Your task to perform on an android device: Open settings on Google Maps Image 0: 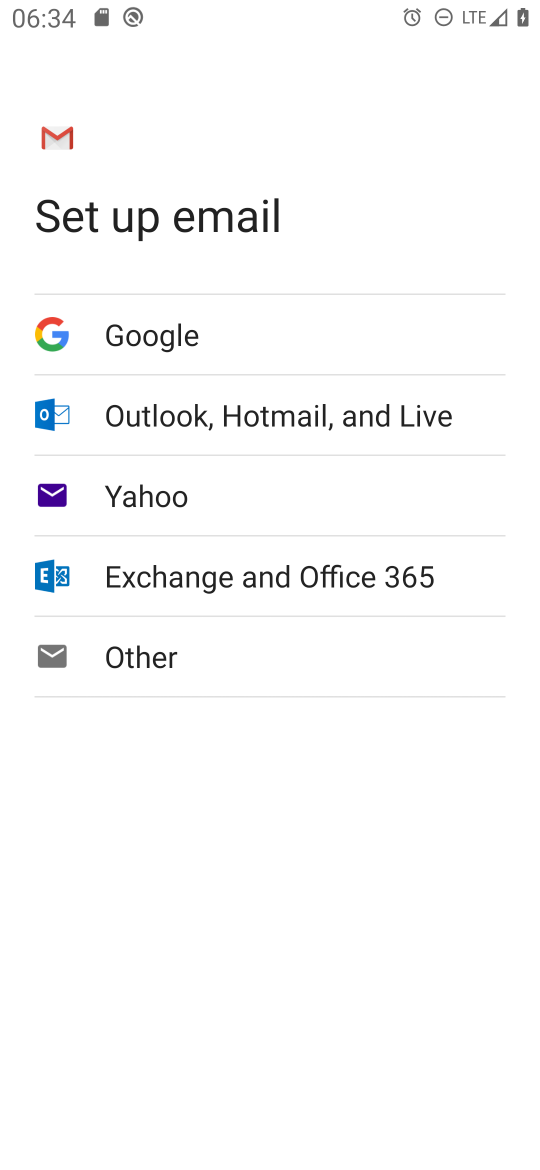
Step 0: press home button
Your task to perform on an android device: Open settings on Google Maps Image 1: 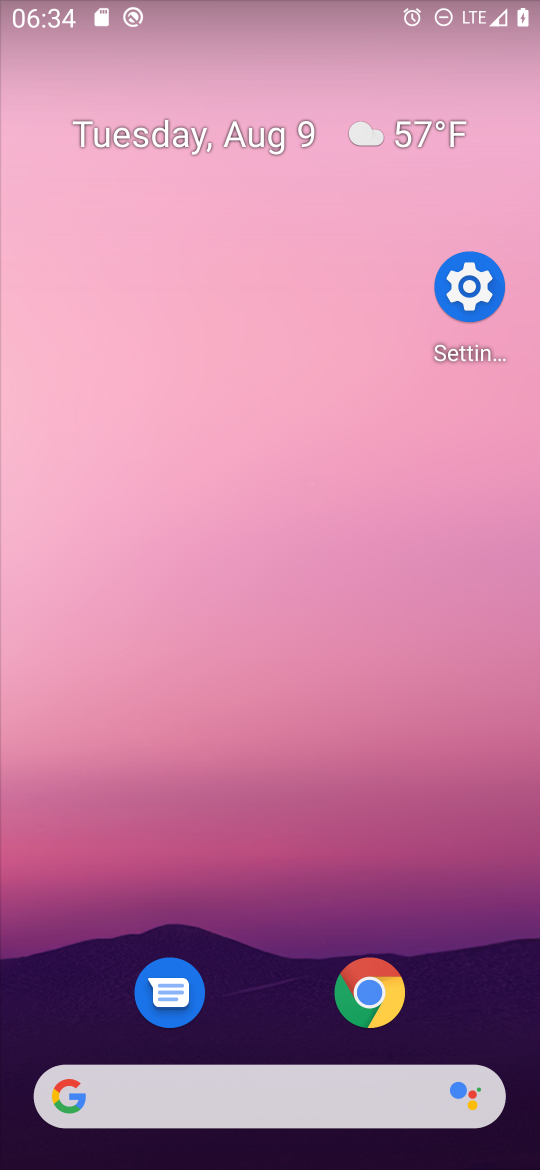
Step 1: drag from (321, 1083) to (257, 793)
Your task to perform on an android device: Open settings on Google Maps Image 2: 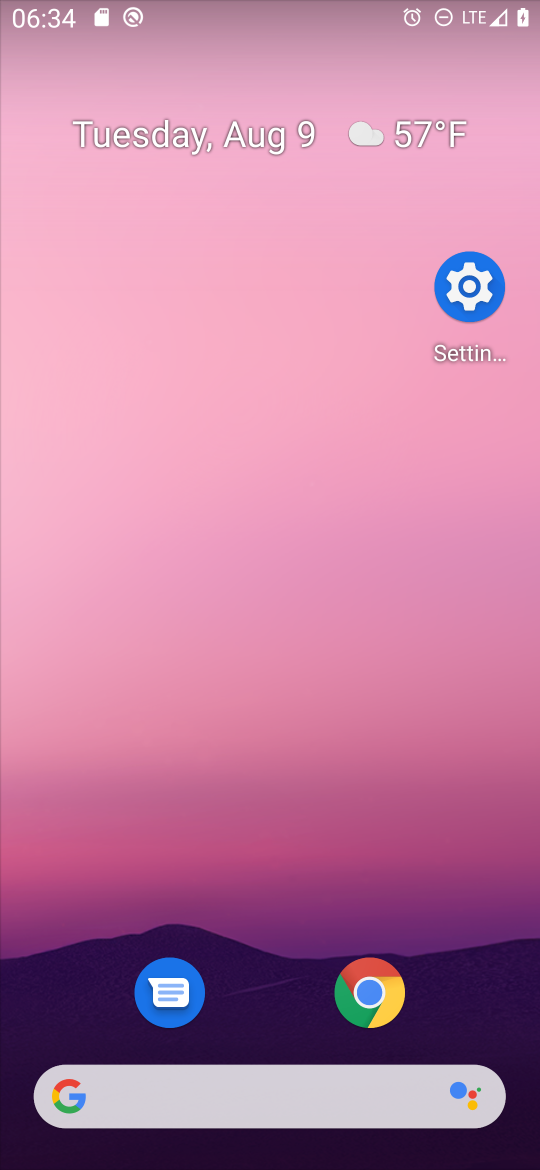
Step 2: drag from (254, 1088) to (246, 160)
Your task to perform on an android device: Open settings on Google Maps Image 3: 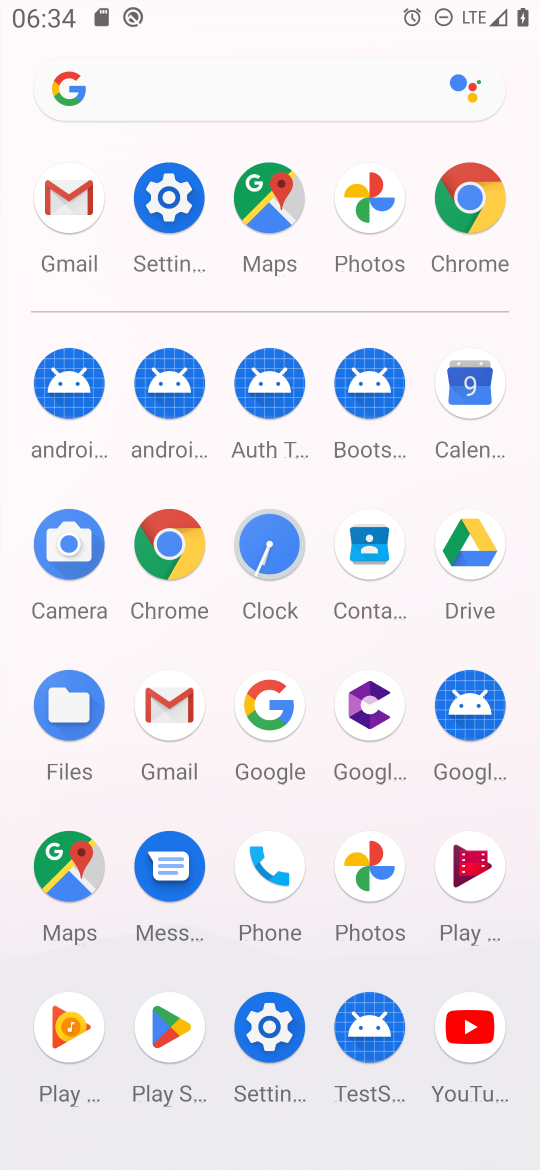
Step 3: click (75, 873)
Your task to perform on an android device: Open settings on Google Maps Image 4: 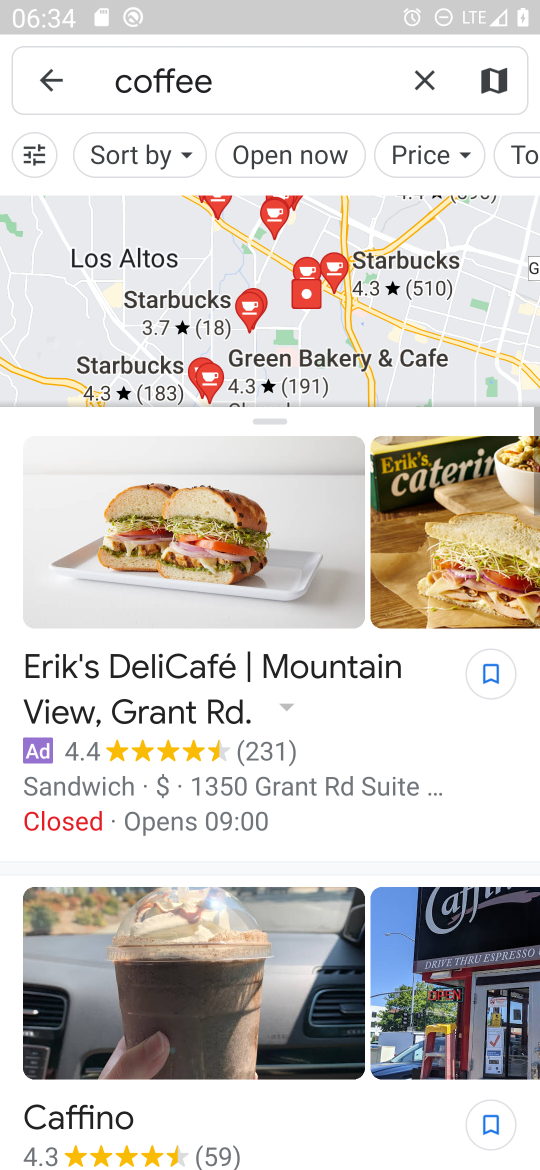
Step 4: press back button
Your task to perform on an android device: Open settings on Google Maps Image 5: 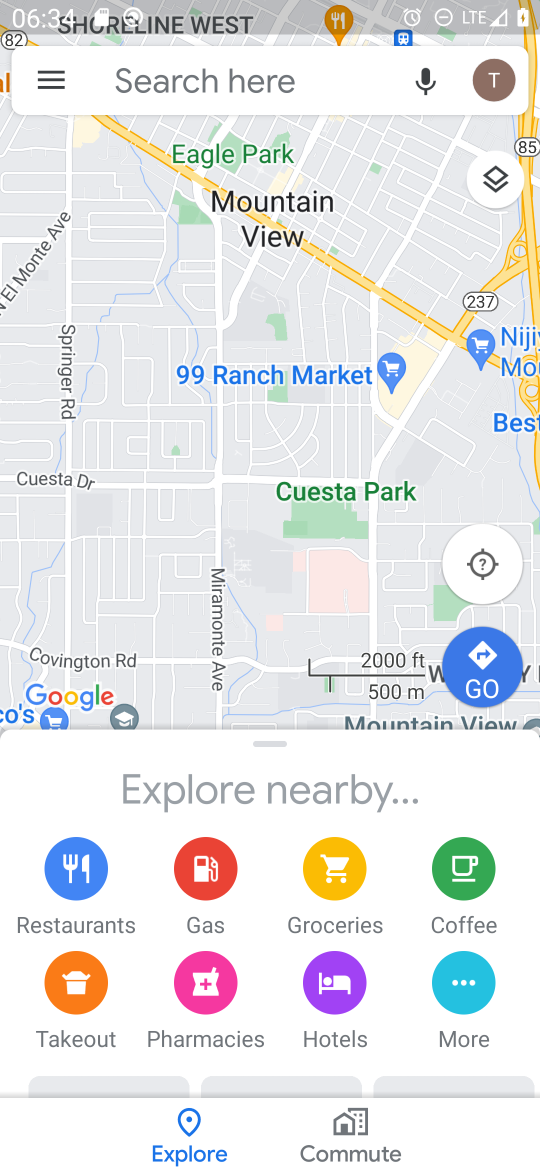
Step 5: click (58, 64)
Your task to perform on an android device: Open settings on Google Maps Image 6: 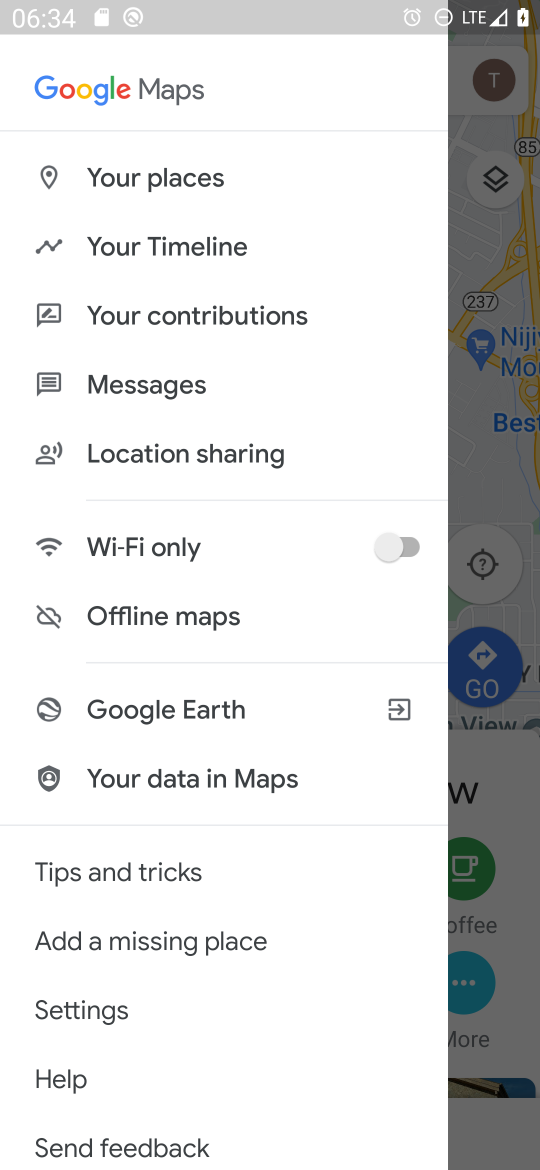
Step 6: click (169, 242)
Your task to perform on an android device: Open settings on Google Maps Image 7: 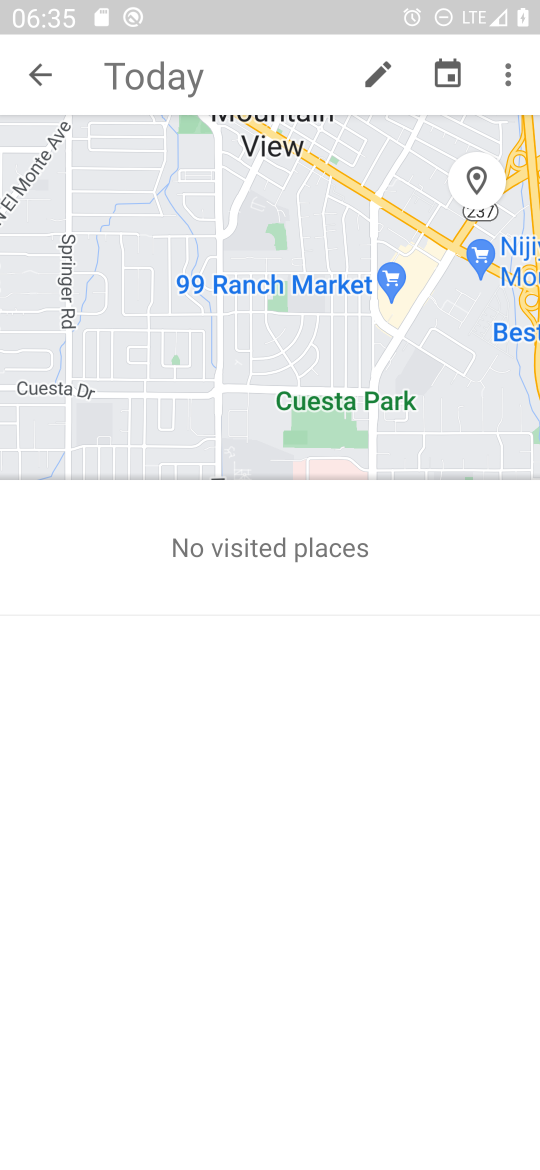
Step 7: click (501, 76)
Your task to perform on an android device: Open settings on Google Maps Image 8: 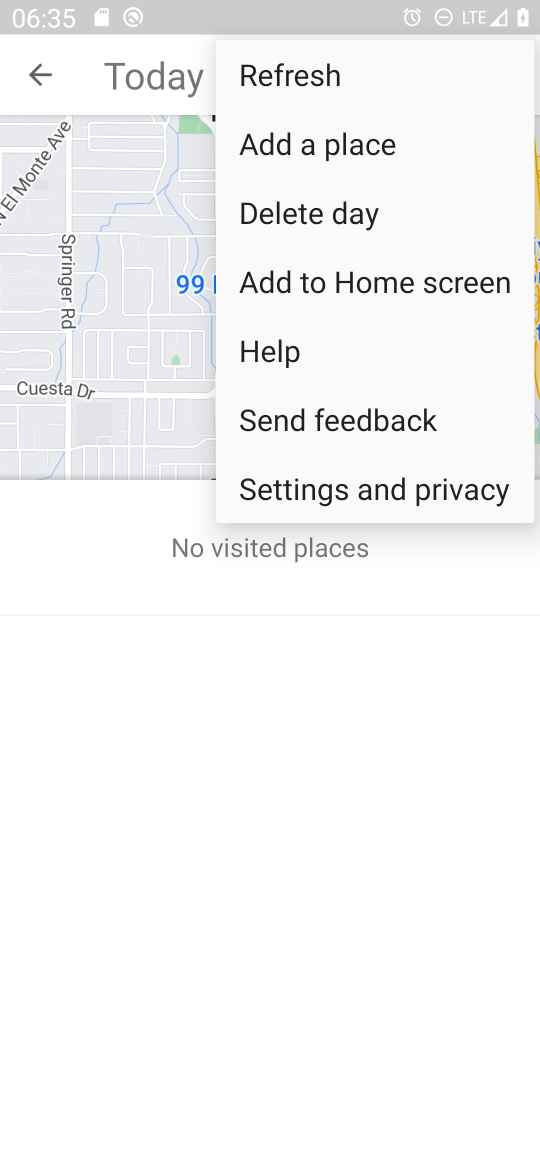
Step 8: click (370, 501)
Your task to perform on an android device: Open settings on Google Maps Image 9: 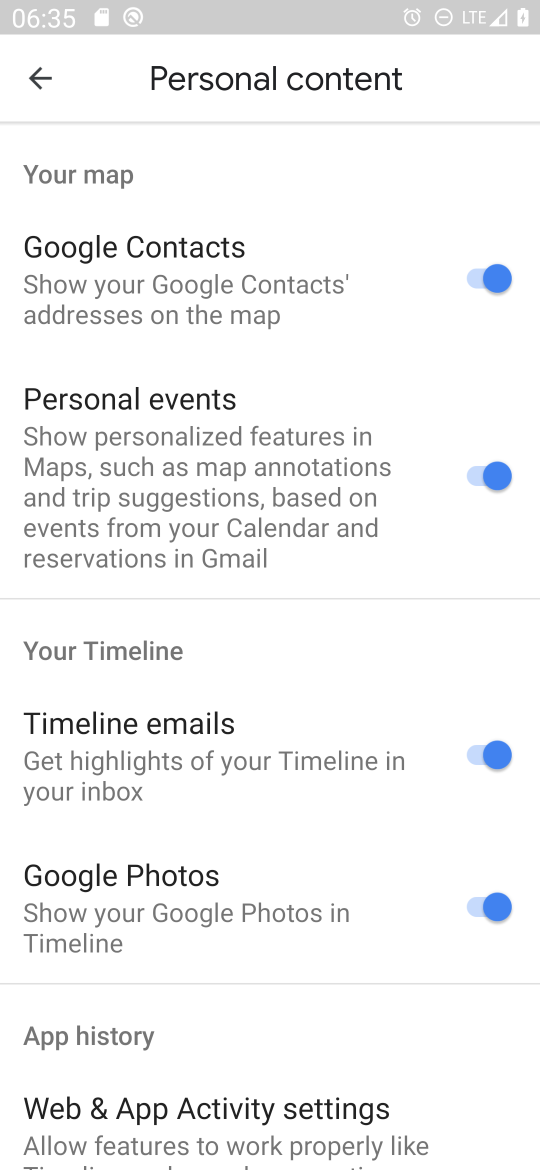
Step 9: task complete